Your task to perform on an android device: Go to Amazon Image 0: 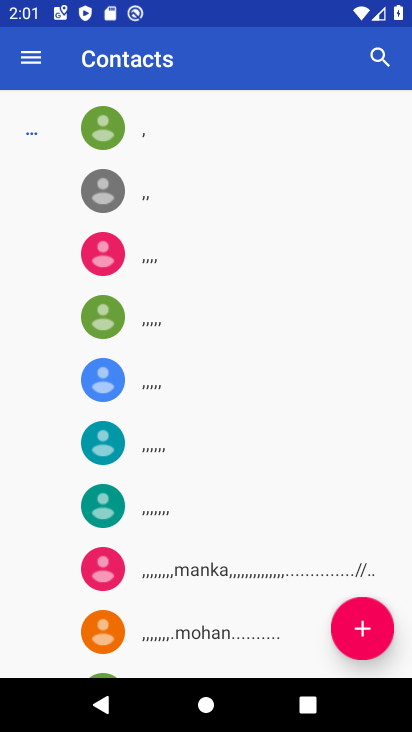
Step 0: press home button
Your task to perform on an android device: Go to Amazon Image 1: 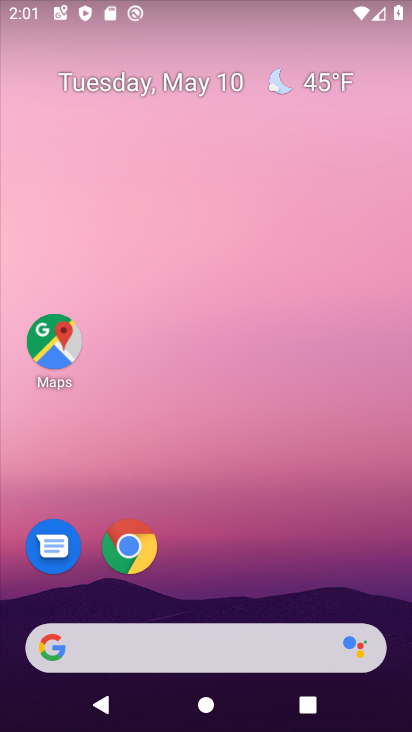
Step 1: click (141, 552)
Your task to perform on an android device: Go to Amazon Image 2: 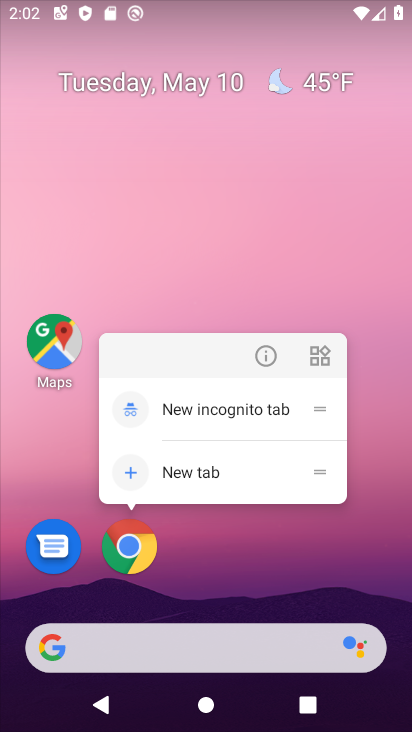
Step 2: click (141, 552)
Your task to perform on an android device: Go to Amazon Image 3: 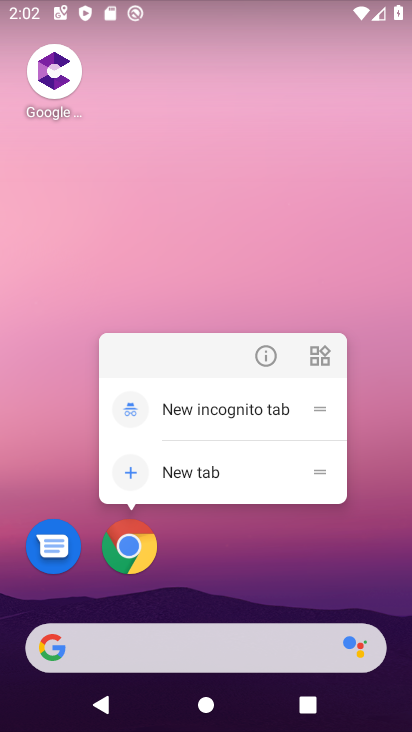
Step 3: click (141, 552)
Your task to perform on an android device: Go to Amazon Image 4: 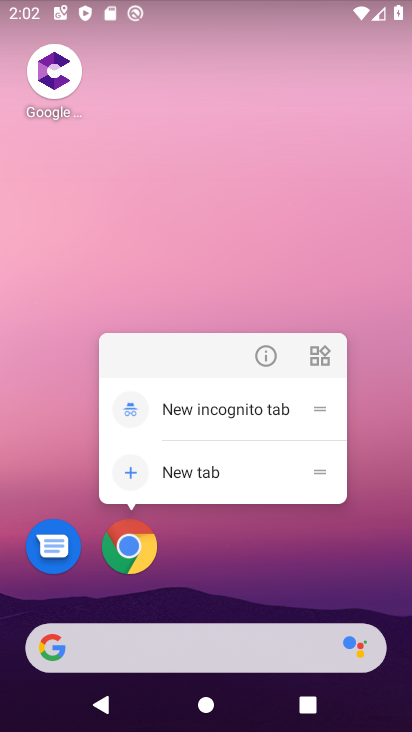
Step 4: click (141, 552)
Your task to perform on an android device: Go to Amazon Image 5: 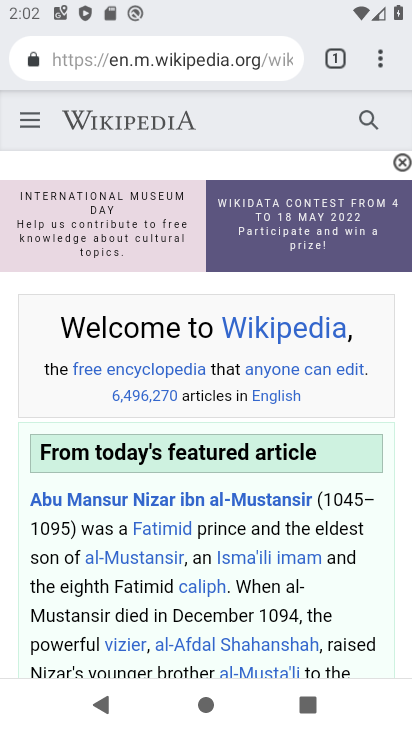
Step 5: click (214, 61)
Your task to perform on an android device: Go to Amazon Image 6: 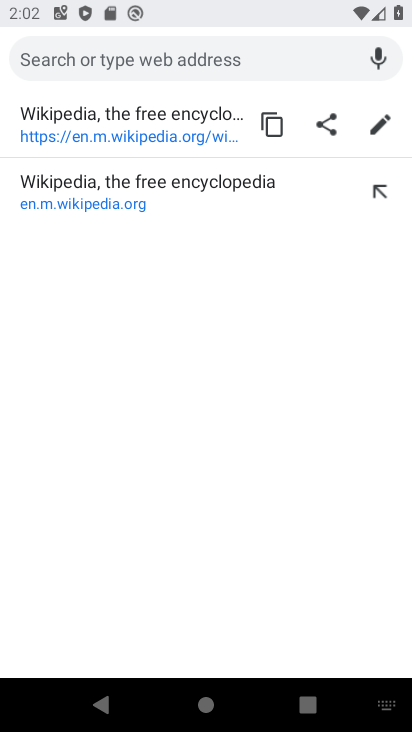
Step 6: type "amazon"
Your task to perform on an android device: Go to Amazon Image 7: 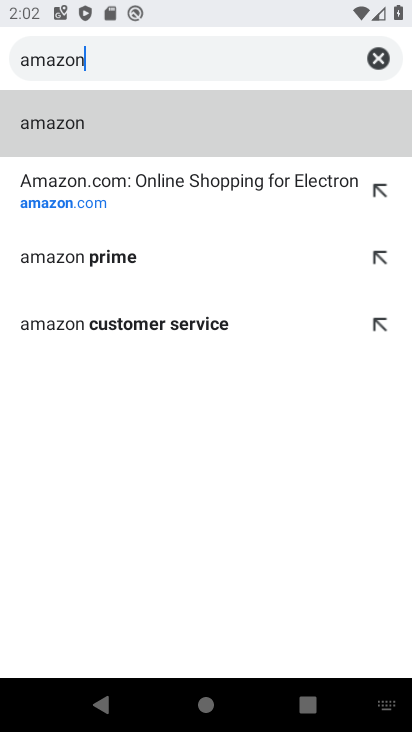
Step 7: click (47, 129)
Your task to perform on an android device: Go to Amazon Image 8: 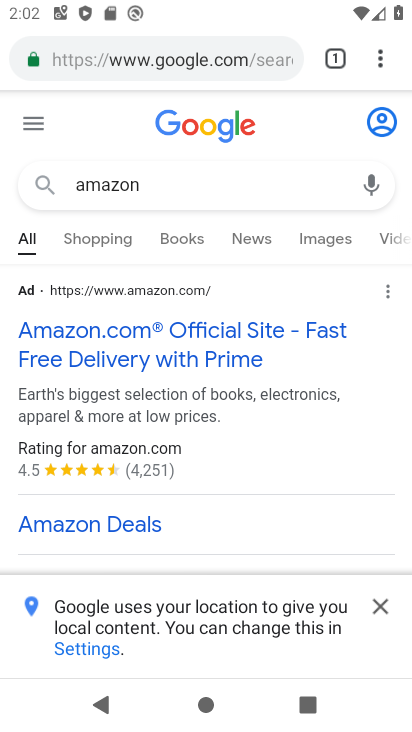
Step 8: click (132, 347)
Your task to perform on an android device: Go to Amazon Image 9: 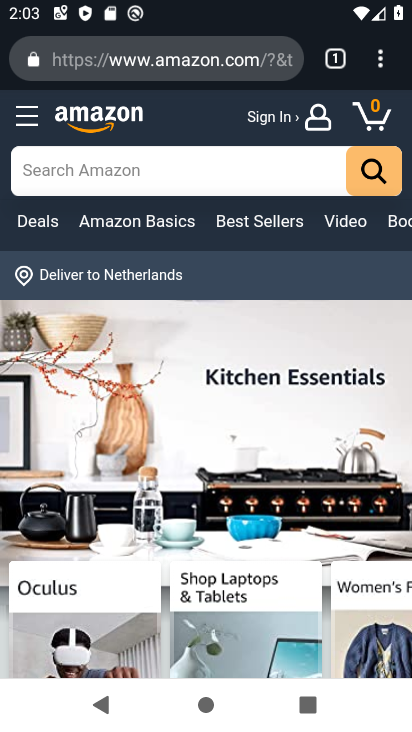
Step 9: task complete